Your task to perform on an android device: Open display settings Image 0: 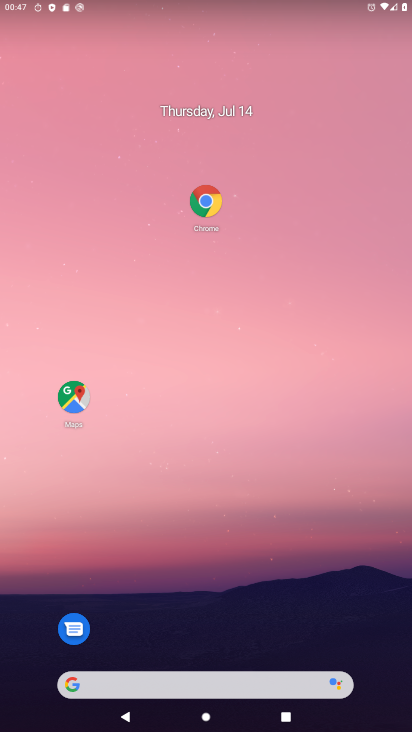
Step 0: drag from (223, 642) to (135, 102)
Your task to perform on an android device: Open display settings Image 1: 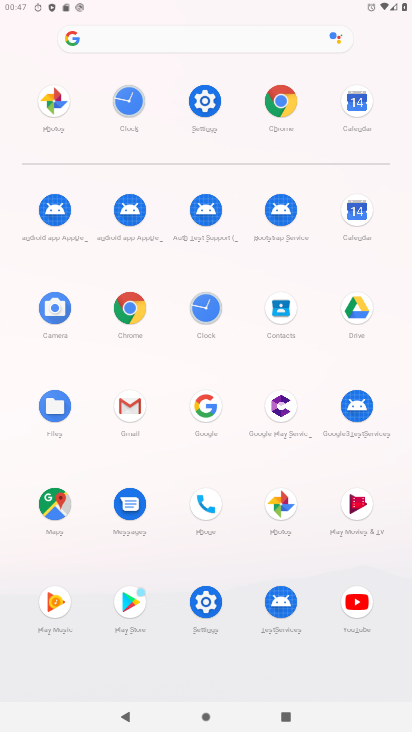
Step 1: click (203, 111)
Your task to perform on an android device: Open display settings Image 2: 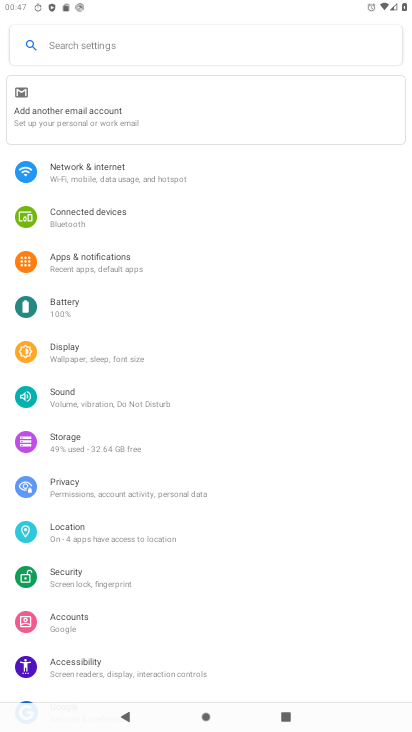
Step 2: click (50, 349)
Your task to perform on an android device: Open display settings Image 3: 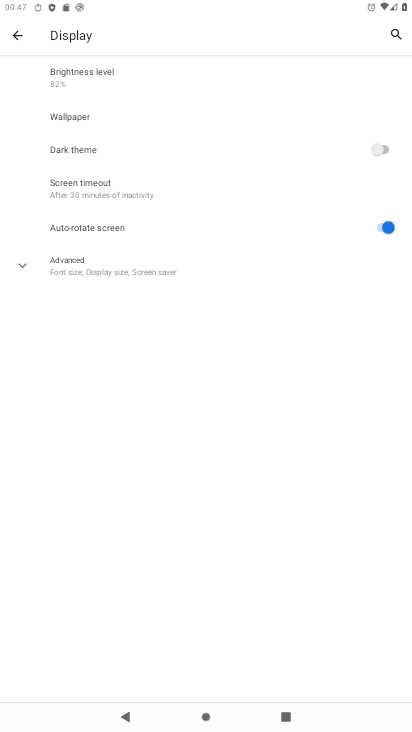
Step 3: click (68, 262)
Your task to perform on an android device: Open display settings Image 4: 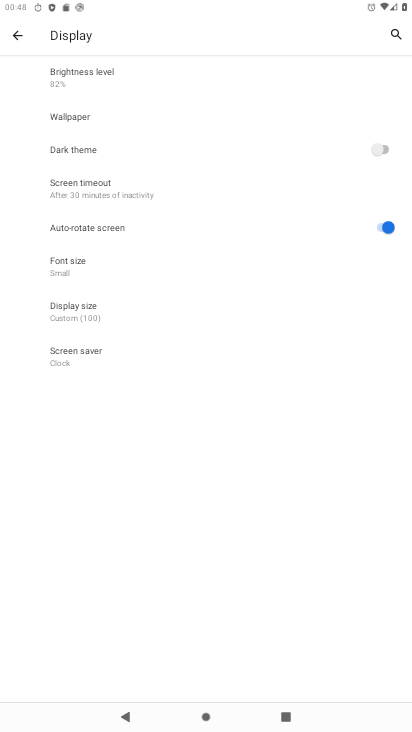
Step 4: task complete